Your task to perform on an android device: turn off location history Image 0: 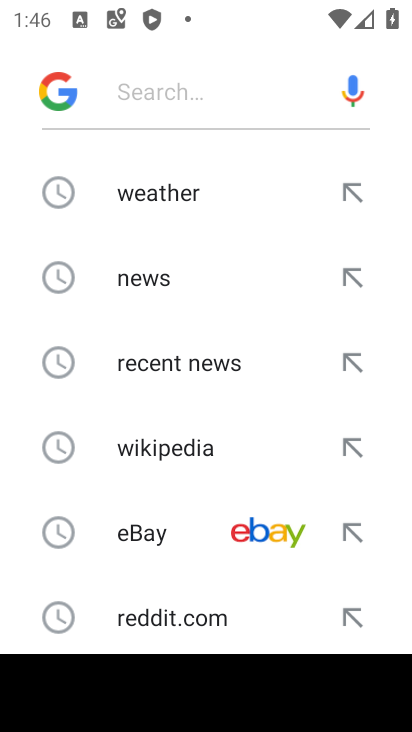
Step 0: press home button
Your task to perform on an android device: turn off location history Image 1: 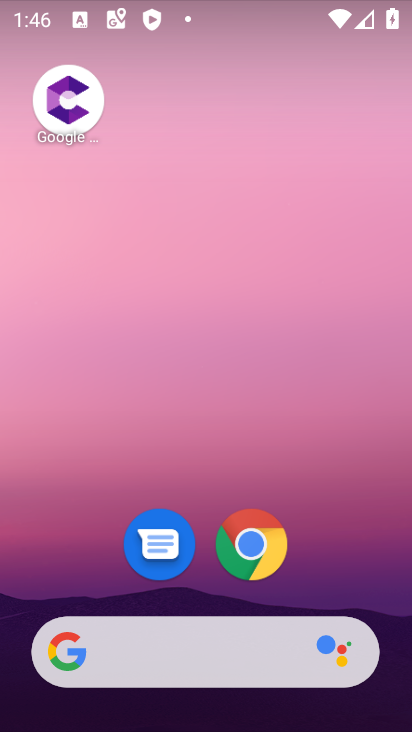
Step 1: drag from (396, 642) to (340, 104)
Your task to perform on an android device: turn off location history Image 2: 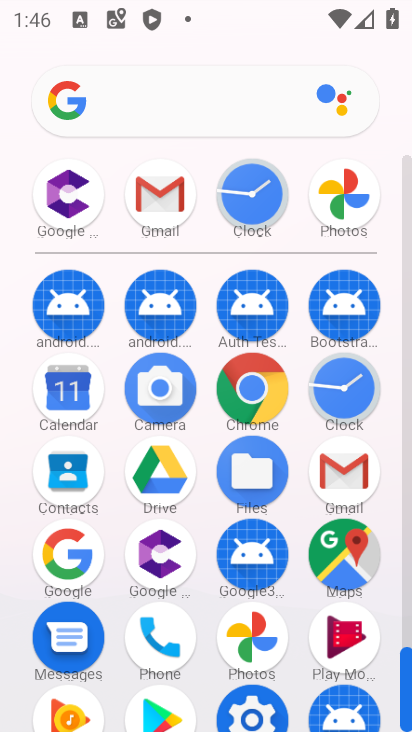
Step 2: click (401, 633)
Your task to perform on an android device: turn off location history Image 3: 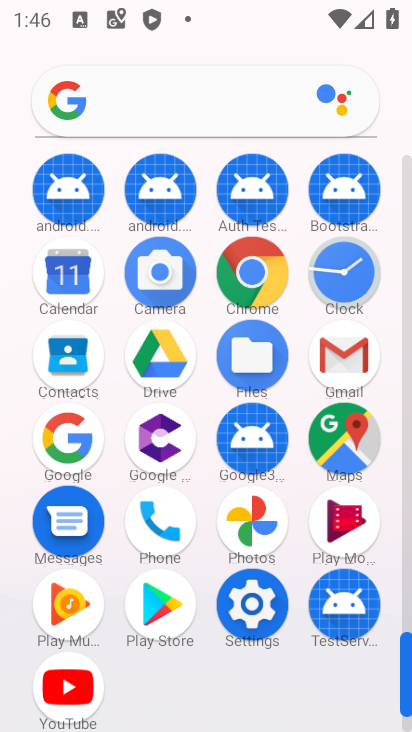
Step 3: click (343, 440)
Your task to perform on an android device: turn off location history Image 4: 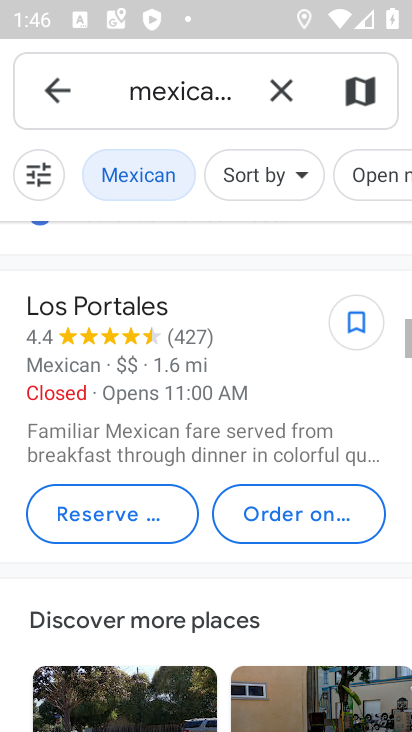
Step 4: click (277, 87)
Your task to perform on an android device: turn off location history Image 5: 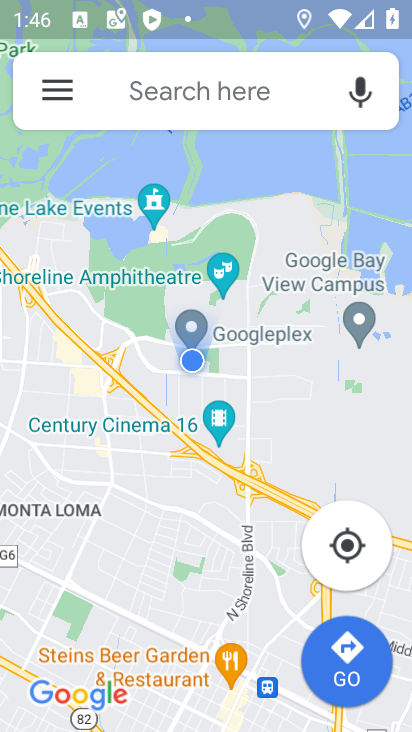
Step 5: click (55, 92)
Your task to perform on an android device: turn off location history Image 6: 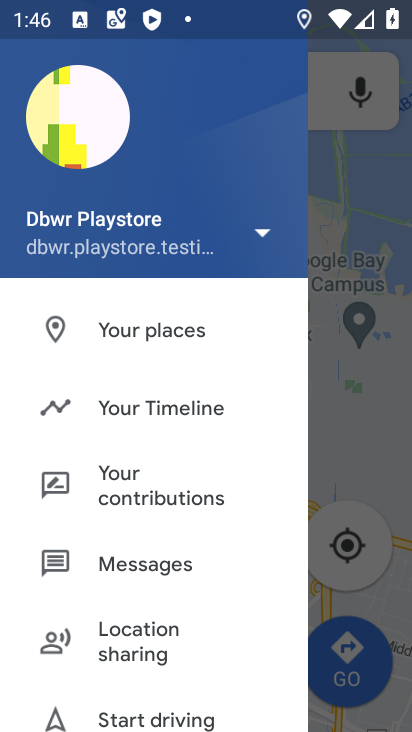
Step 6: drag from (228, 637) to (241, 113)
Your task to perform on an android device: turn off location history Image 7: 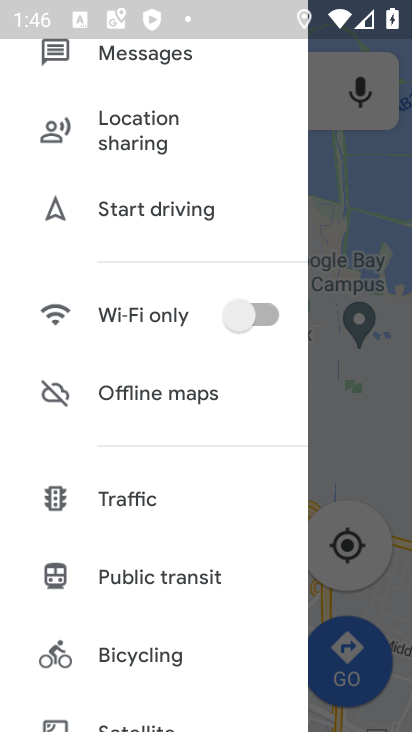
Step 7: drag from (217, 587) to (206, 169)
Your task to perform on an android device: turn off location history Image 8: 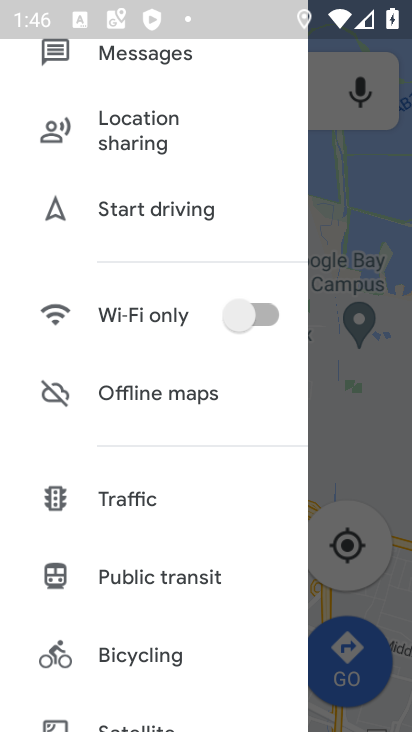
Step 8: drag from (211, 657) to (219, 111)
Your task to perform on an android device: turn off location history Image 9: 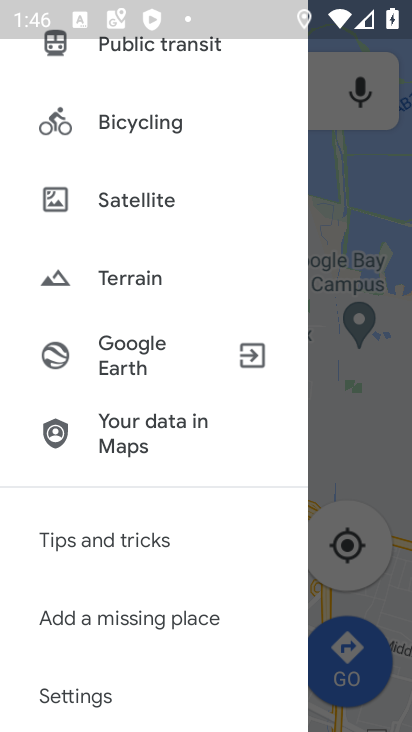
Step 9: drag from (232, 659) to (201, 203)
Your task to perform on an android device: turn off location history Image 10: 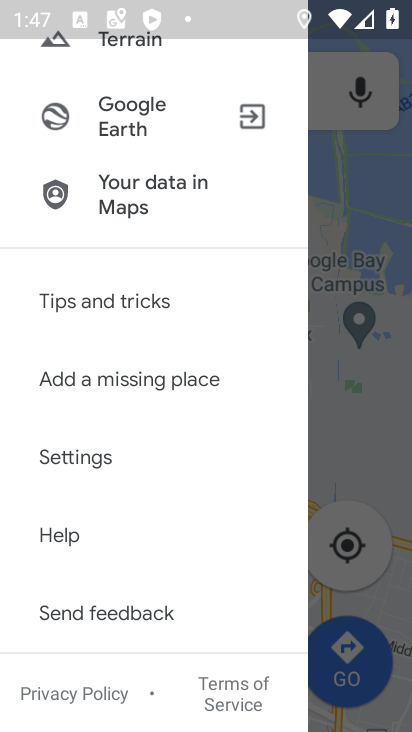
Step 10: click (77, 461)
Your task to perform on an android device: turn off location history Image 11: 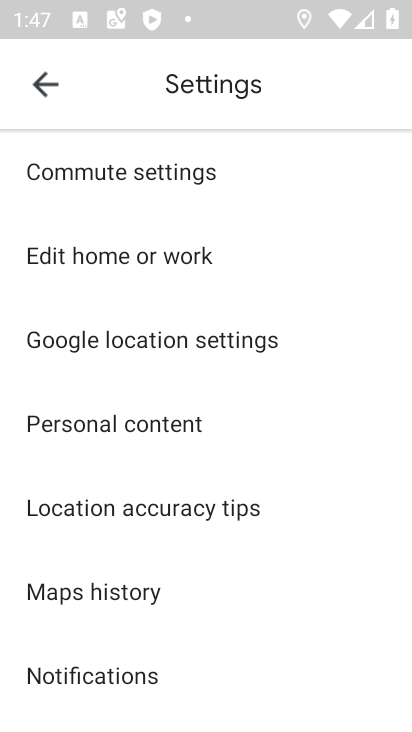
Step 11: click (87, 429)
Your task to perform on an android device: turn off location history Image 12: 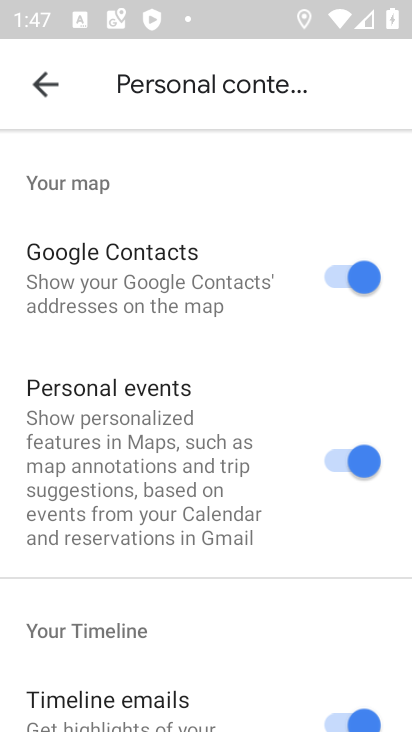
Step 12: task complete